Your task to perform on an android device: Search for Italian restaurants on Maps Image 0: 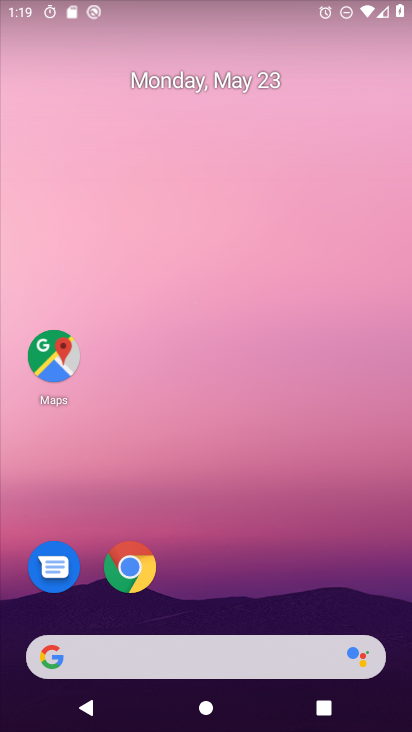
Step 0: click (52, 368)
Your task to perform on an android device: Search for Italian restaurants on Maps Image 1: 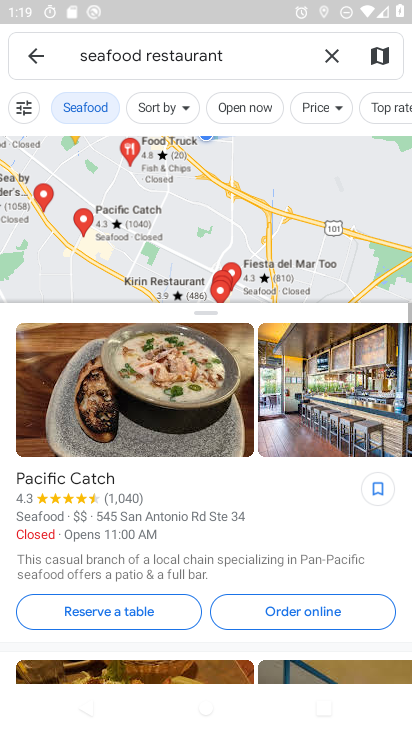
Step 1: click (333, 54)
Your task to perform on an android device: Search for Italian restaurants on Maps Image 2: 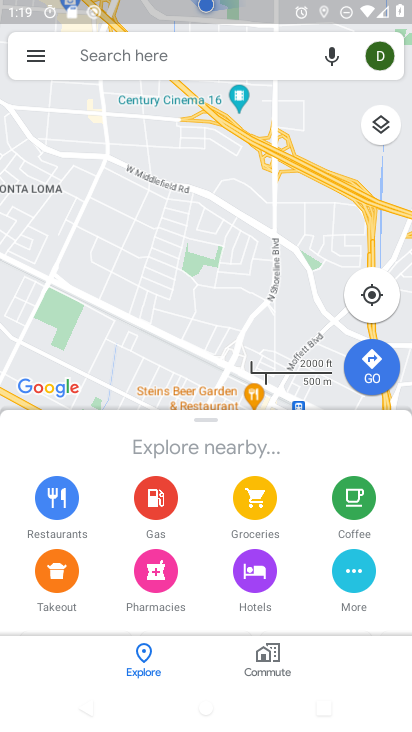
Step 2: click (98, 53)
Your task to perform on an android device: Search for Italian restaurants on Maps Image 3: 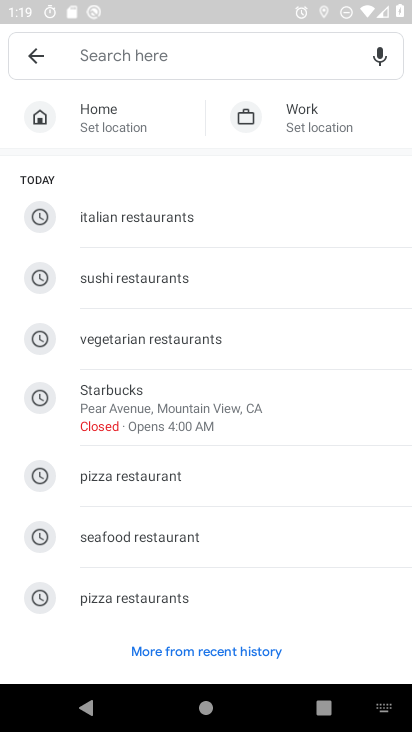
Step 3: click (106, 215)
Your task to perform on an android device: Search for Italian restaurants on Maps Image 4: 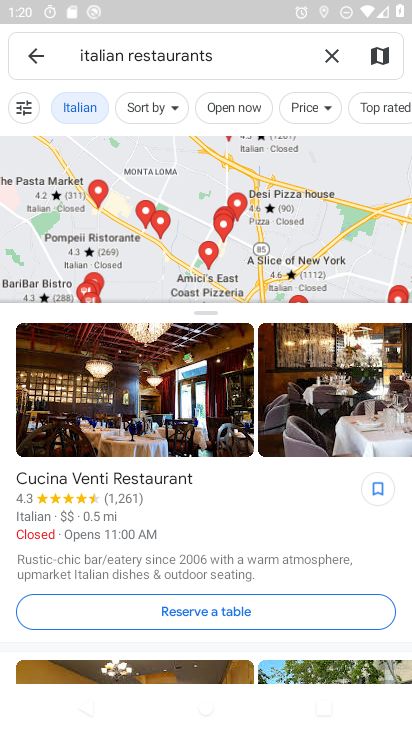
Step 4: task complete